Your task to perform on an android device: Open Google Maps and go to "Timeline" Image 0: 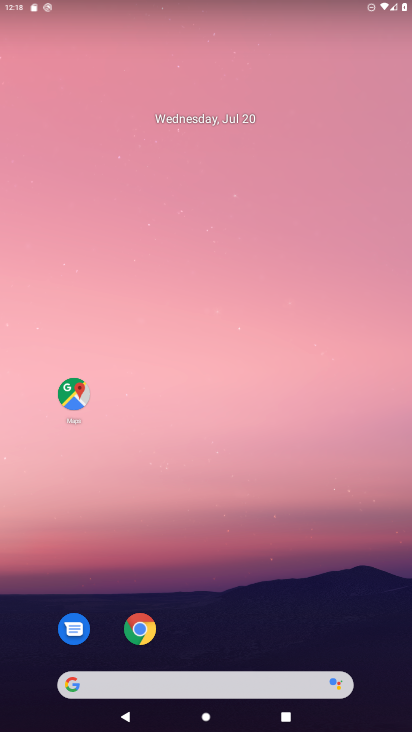
Step 0: drag from (194, 577) to (213, 77)
Your task to perform on an android device: Open Google Maps and go to "Timeline" Image 1: 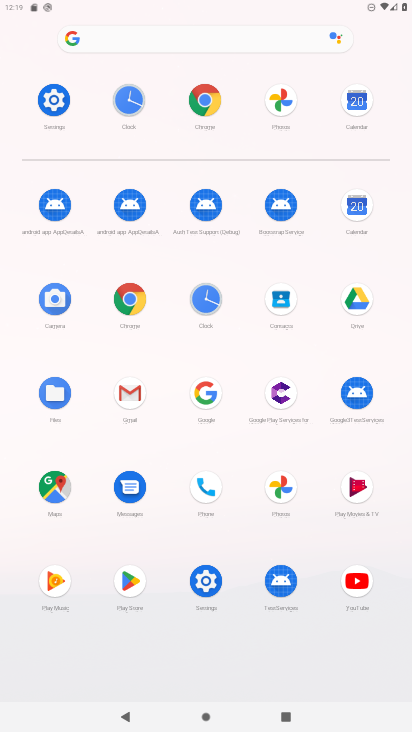
Step 1: click (50, 498)
Your task to perform on an android device: Open Google Maps and go to "Timeline" Image 2: 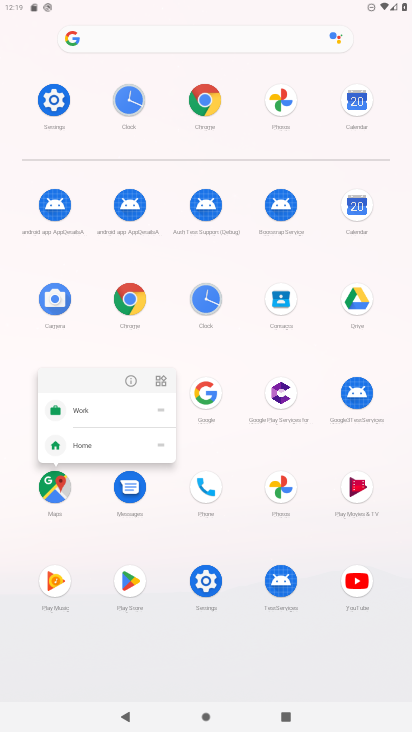
Step 2: click (137, 380)
Your task to perform on an android device: Open Google Maps and go to "Timeline" Image 3: 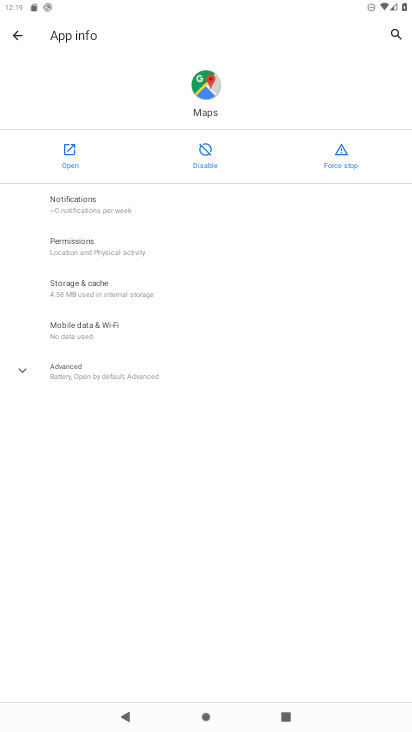
Step 3: click (73, 154)
Your task to perform on an android device: Open Google Maps and go to "Timeline" Image 4: 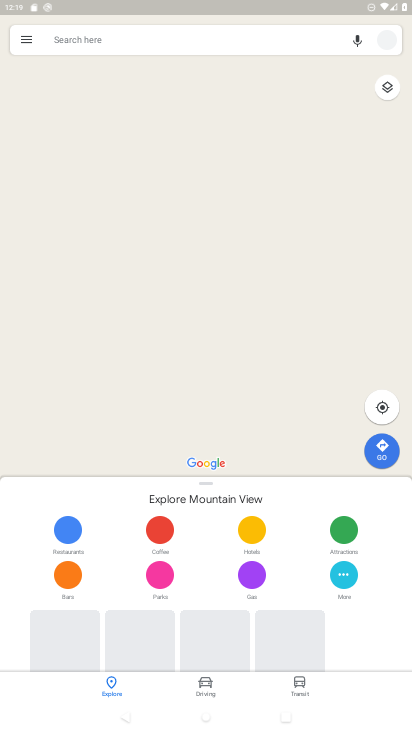
Step 4: click (19, 35)
Your task to perform on an android device: Open Google Maps and go to "Timeline" Image 5: 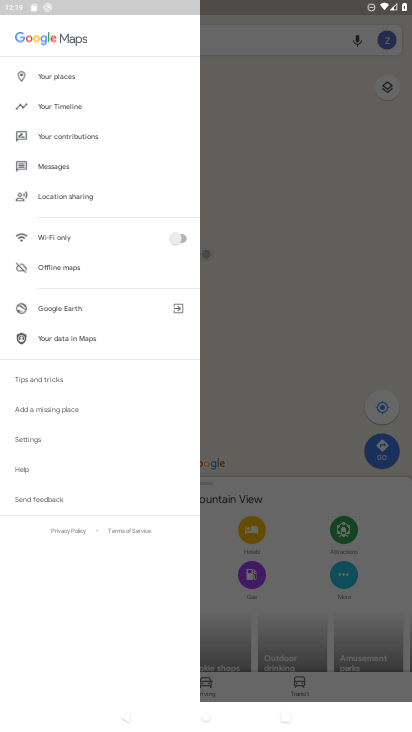
Step 5: click (63, 100)
Your task to perform on an android device: Open Google Maps and go to "Timeline" Image 6: 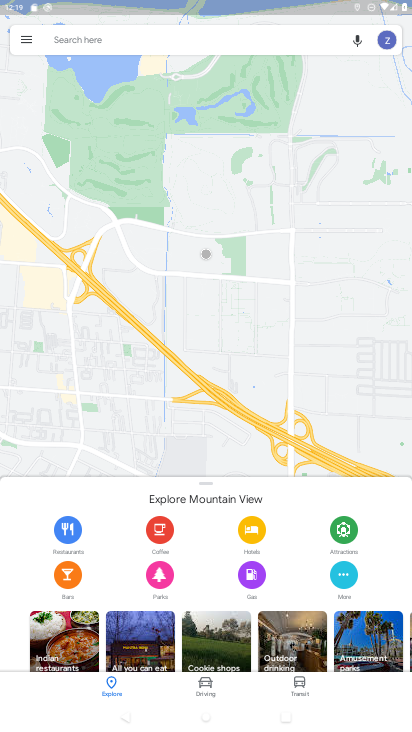
Step 6: task complete